Your task to perform on an android device: Open the calendar and show me this week's events Image 0: 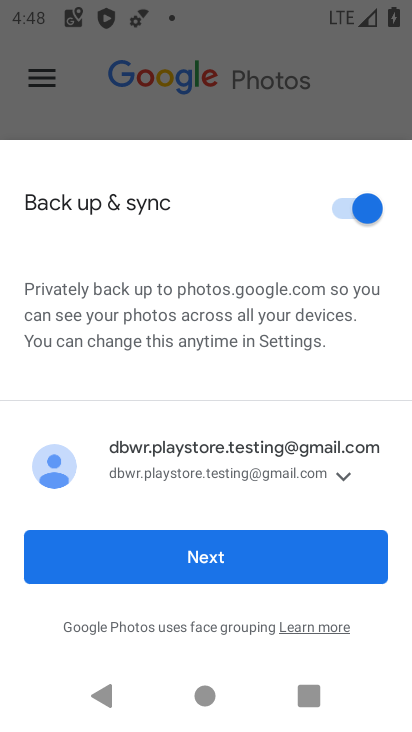
Step 0: press home button
Your task to perform on an android device: Open the calendar and show me this week's events Image 1: 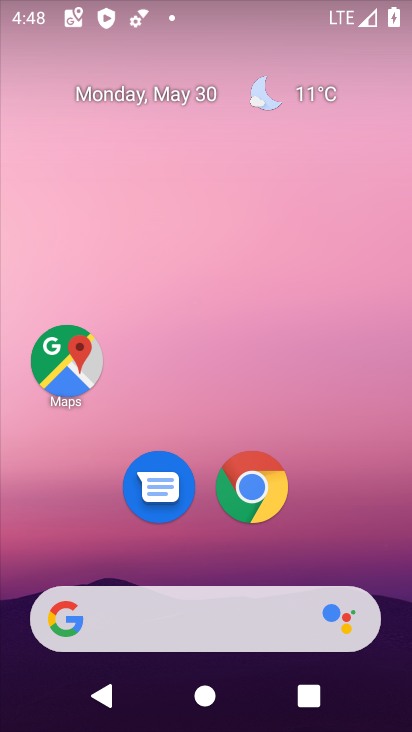
Step 1: drag from (402, 634) to (278, 92)
Your task to perform on an android device: Open the calendar and show me this week's events Image 2: 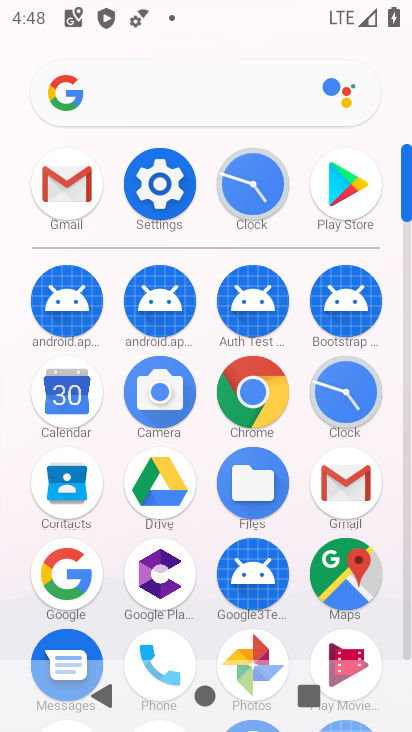
Step 2: click (411, 651)
Your task to perform on an android device: Open the calendar and show me this week's events Image 3: 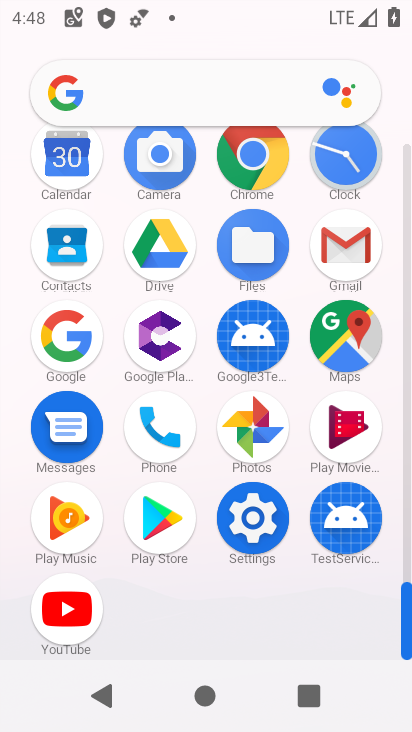
Step 3: click (64, 156)
Your task to perform on an android device: Open the calendar and show me this week's events Image 4: 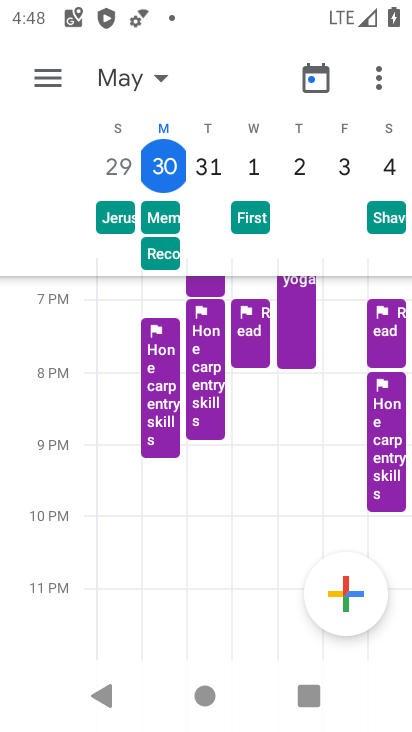
Step 4: task complete